Your task to perform on an android device: Open the web browser Image 0: 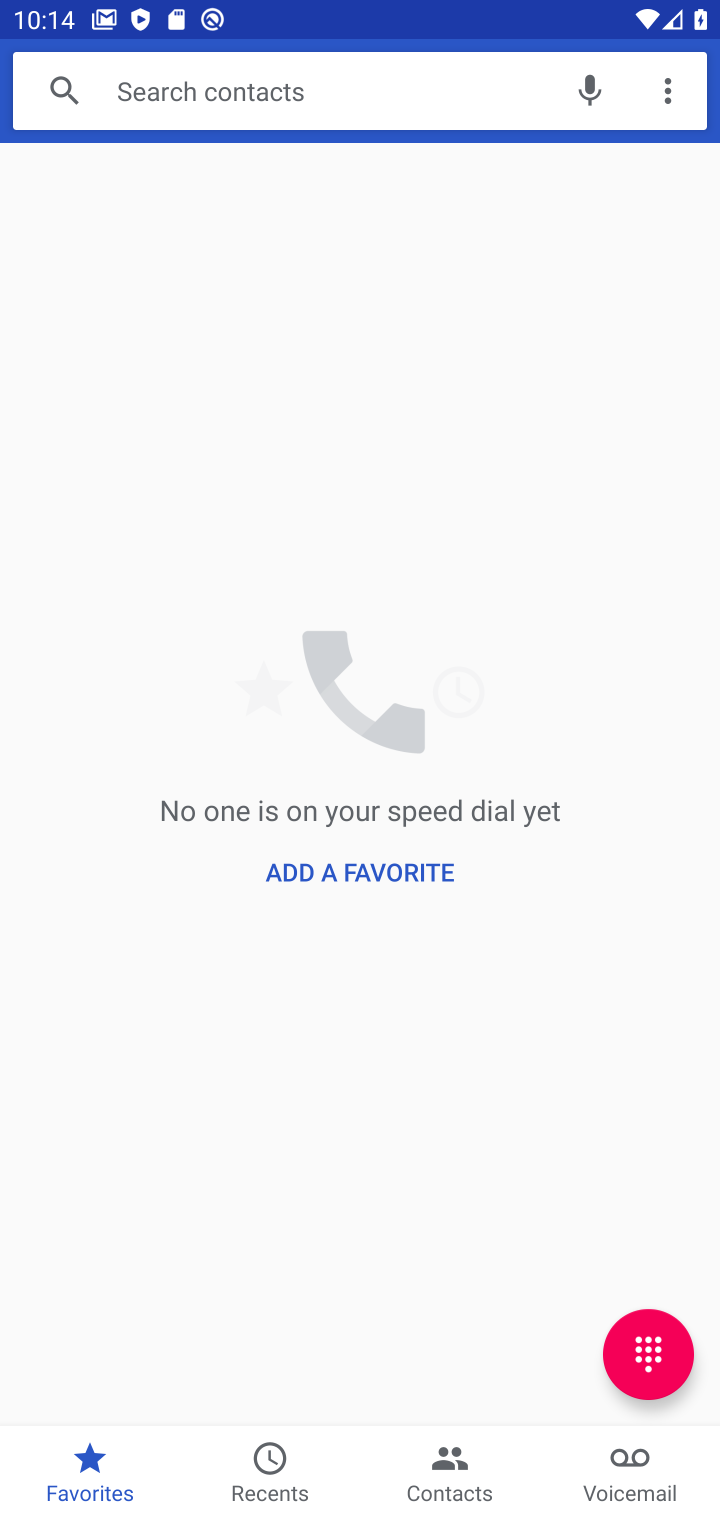
Step 0: press back button
Your task to perform on an android device: Open the web browser Image 1: 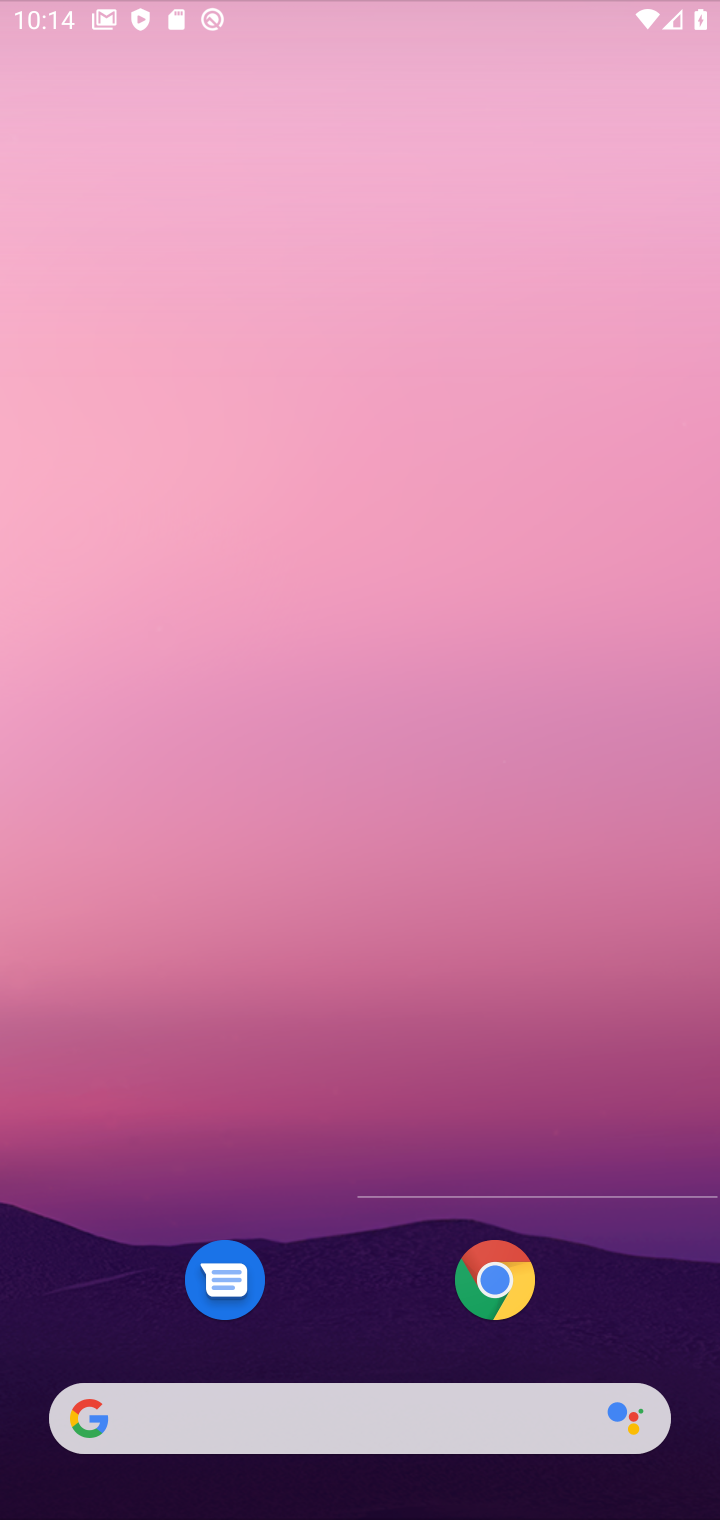
Step 1: click (508, 1276)
Your task to perform on an android device: Open the web browser Image 2: 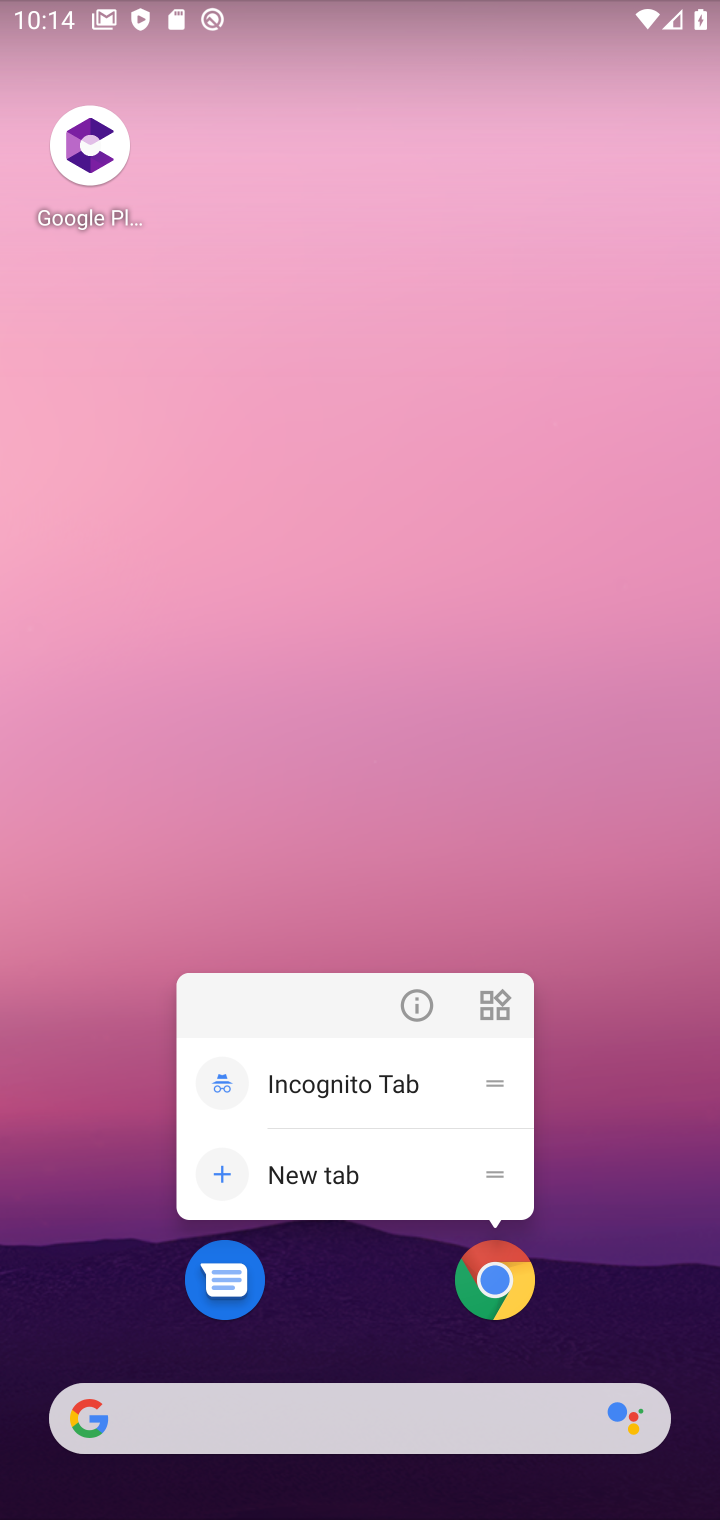
Step 2: click (487, 1272)
Your task to perform on an android device: Open the web browser Image 3: 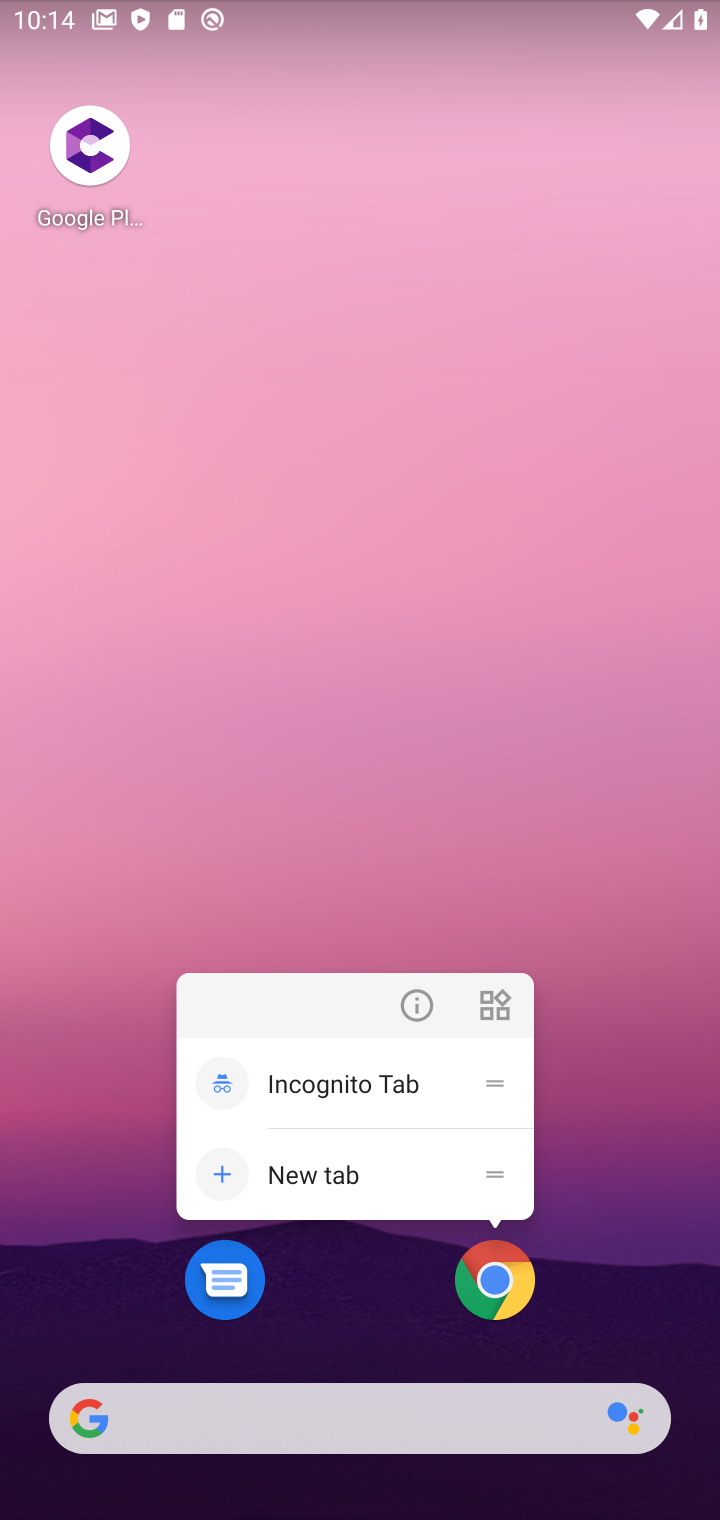
Step 3: click (506, 1283)
Your task to perform on an android device: Open the web browser Image 4: 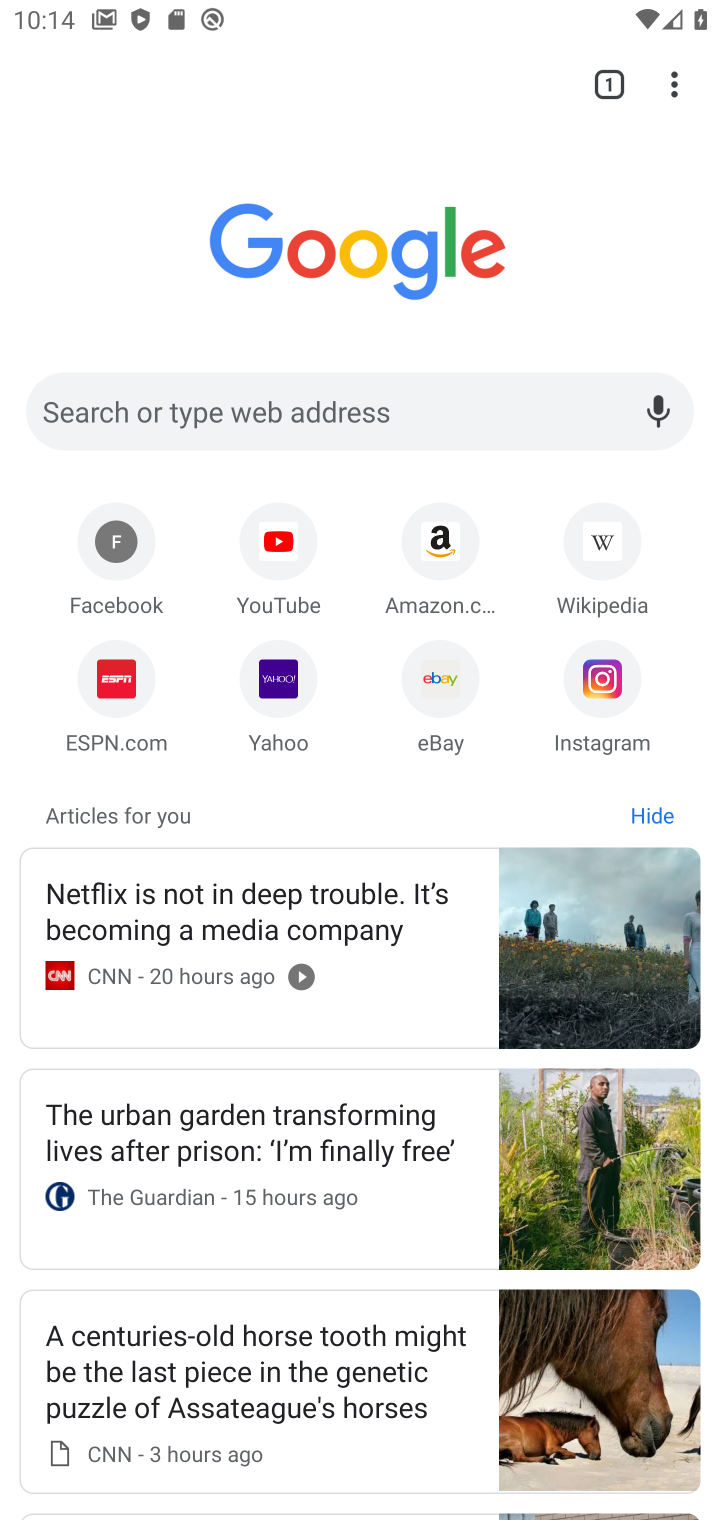
Step 4: task complete